Your task to perform on an android device: check the backup settings in the google photos Image 0: 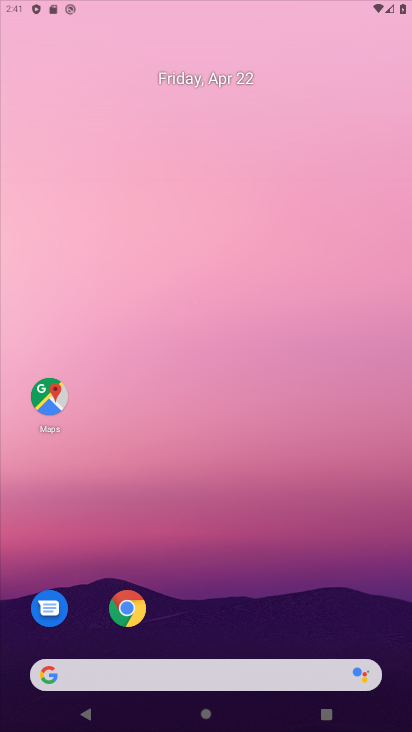
Step 0: drag from (224, 648) to (252, 126)
Your task to perform on an android device: check the backup settings in the google photos Image 1: 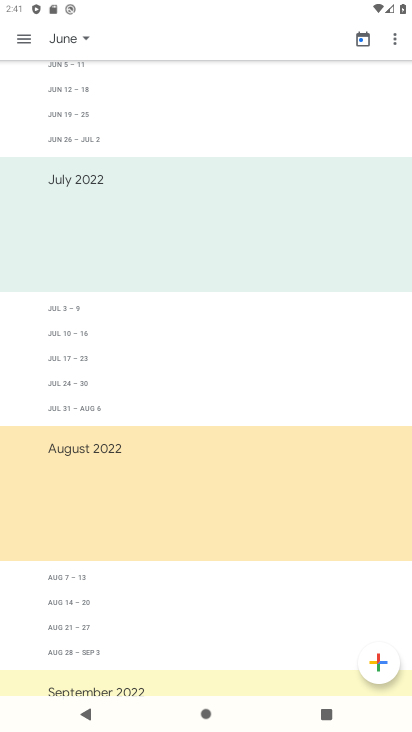
Step 1: press home button
Your task to perform on an android device: check the backup settings in the google photos Image 2: 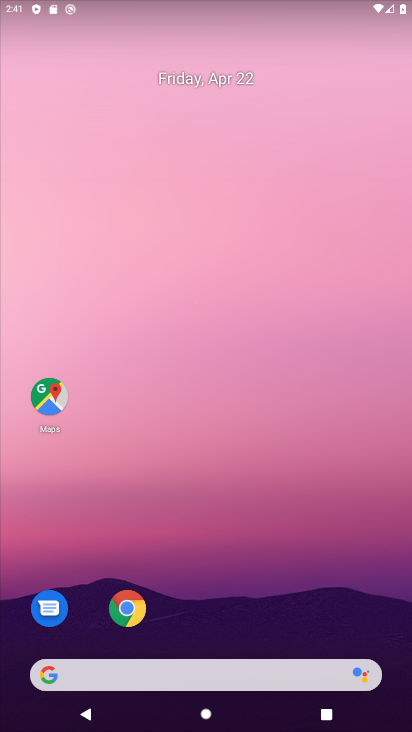
Step 2: drag from (210, 656) to (229, 47)
Your task to perform on an android device: check the backup settings in the google photos Image 3: 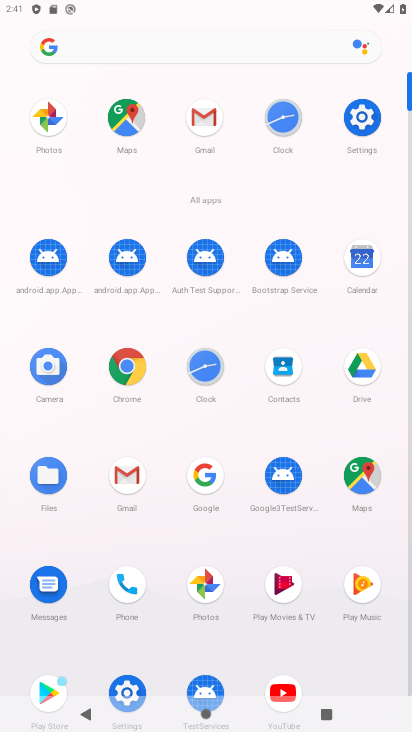
Step 3: click (201, 589)
Your task to perform on an android device: check the backup settings in the google photos Image 4: 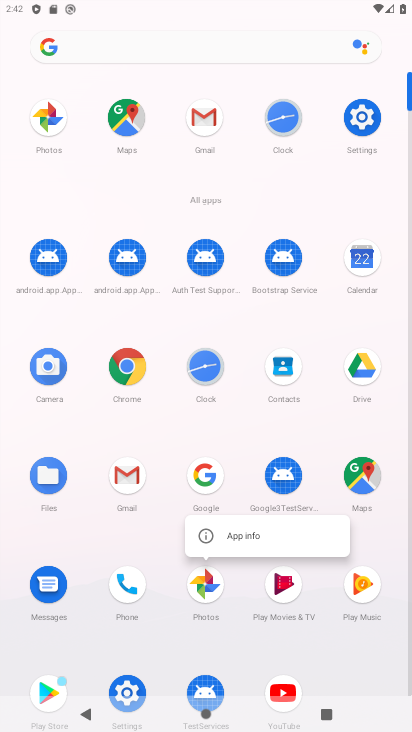
Step 4: click (207, 578)
Your task to perform on an android device: check the backup settings in the google photos Image 5: 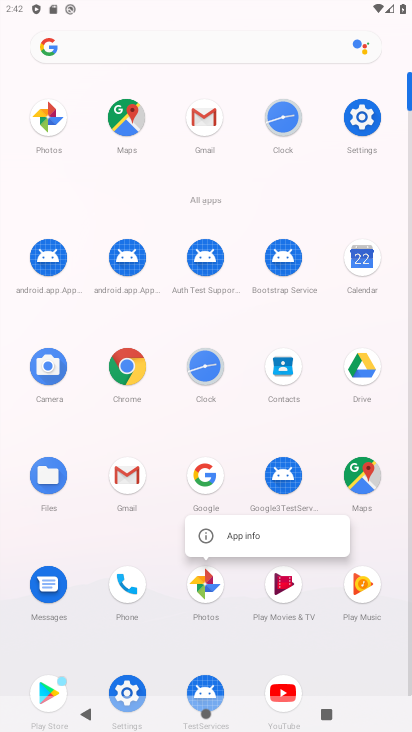
Step 5: click (207, 578)
Your task to perform on an android device: check the backup settings in the google photos Image 6: 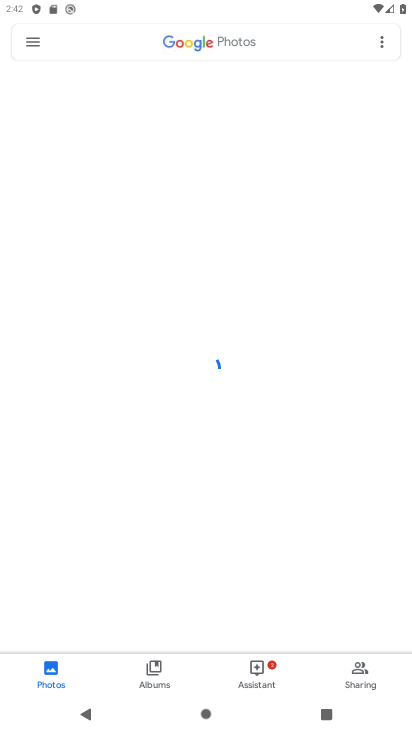
Step 6: click (29, 40)
Your task to perform on an android device: check the backup settings in the google photos Image 7: 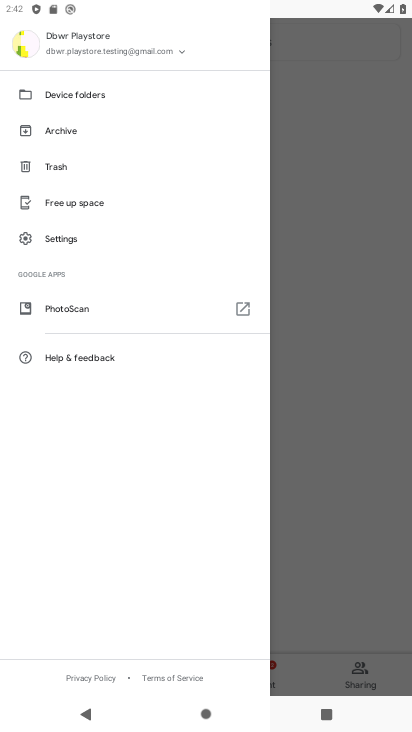
Step 7: click (47, 240)
Your task to perform on an android device: check the backup settings in the google photos Image 8: 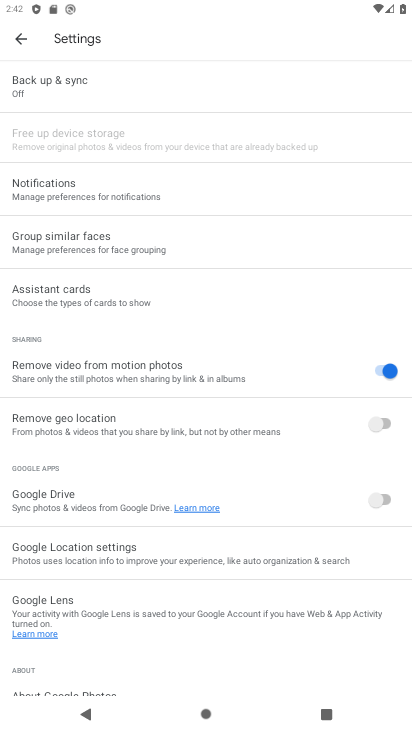
Step 8: click (61, 77)
Your task to perform on an android device: check the backup settings in the google photos Image 9: 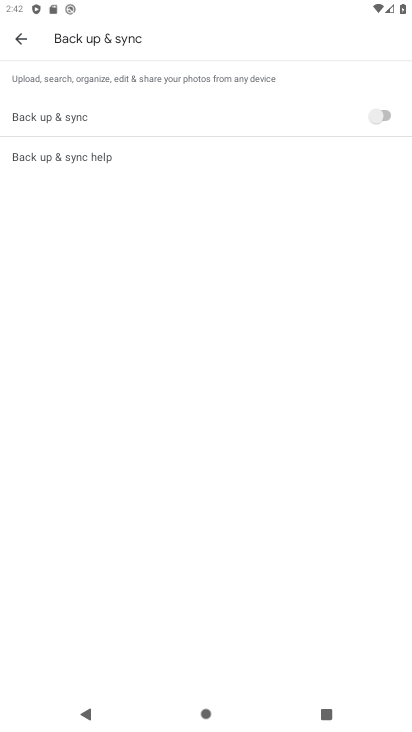
Step 9: click (49, 113)
Your task to perform on an android device: check the backup settings in the google photos Image 10: 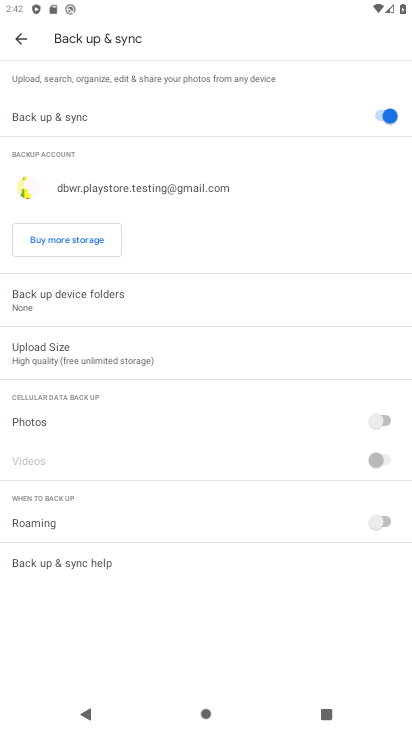
Step 10: task complete